Your task to perform on an android device: What's on my calendar tomorrow? Image 0: 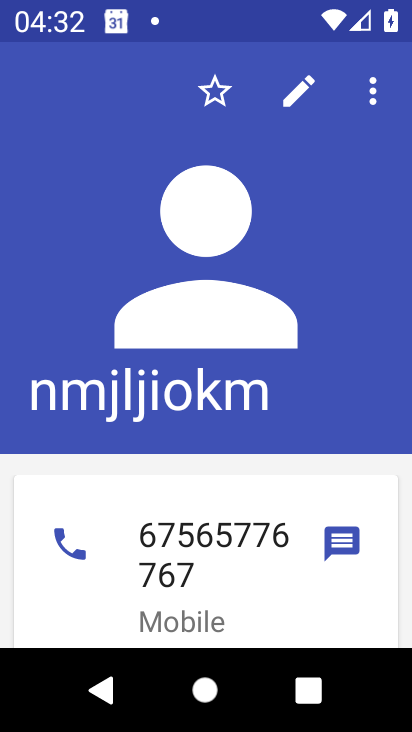
Step 0: press home button
Your task to perform on an android device: What's on my calendar tomorrow? Image 1: 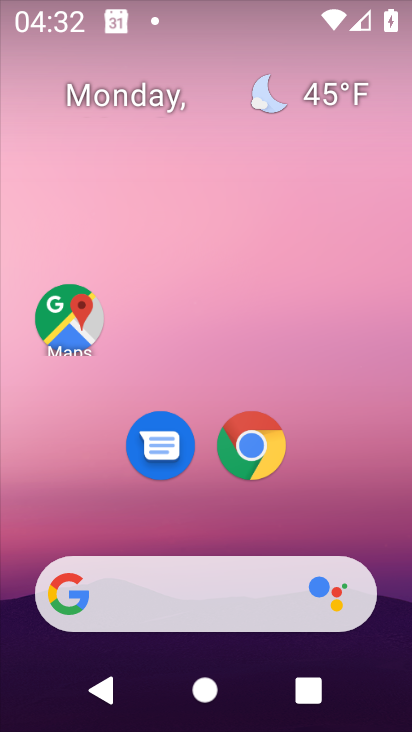
Step 1: drag from (347, 454) to (303, 17)
Your task to perform on an android device: What's on my calendar tomorrow? Image 2: 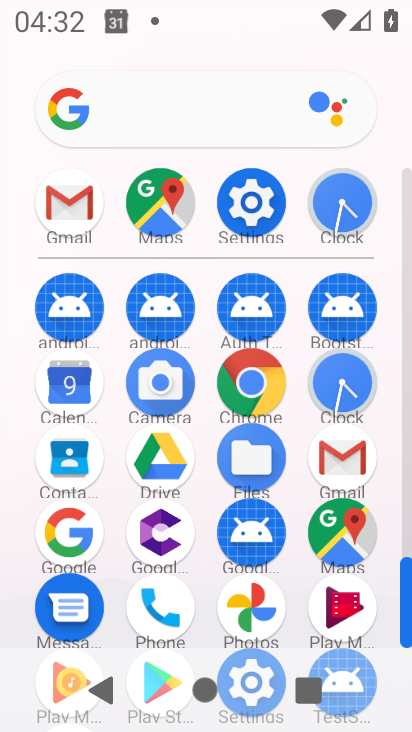
Step 2: click (59, 395)
Your task to perform on an android device: What's on my calendar tomorrow? Image 3: 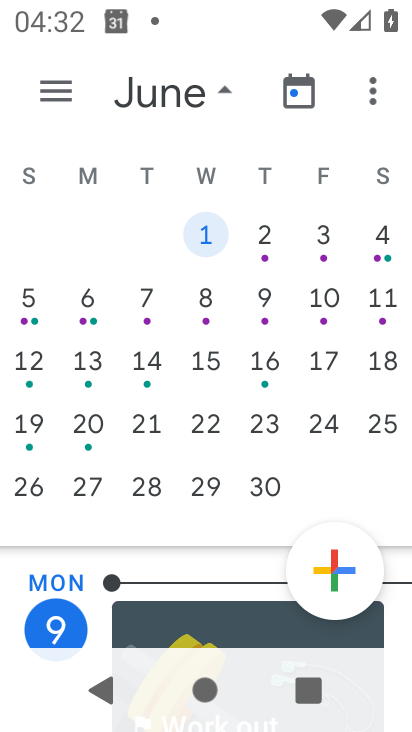
Step 3: drag from (261, 243) to (406, 269)
Your task to perform on an android device: What's on my calendar tomorrow? Image 4: 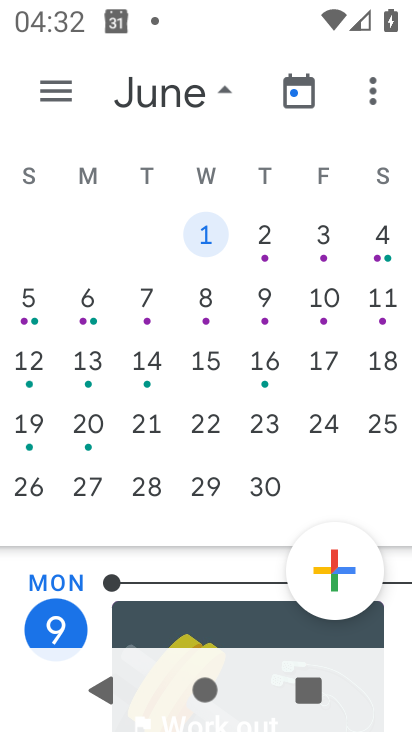
Step 4: drag from (96, 338) to (407, 416)
Your task to perform on an android device: What's on my calendar tomorrow? Image 5: 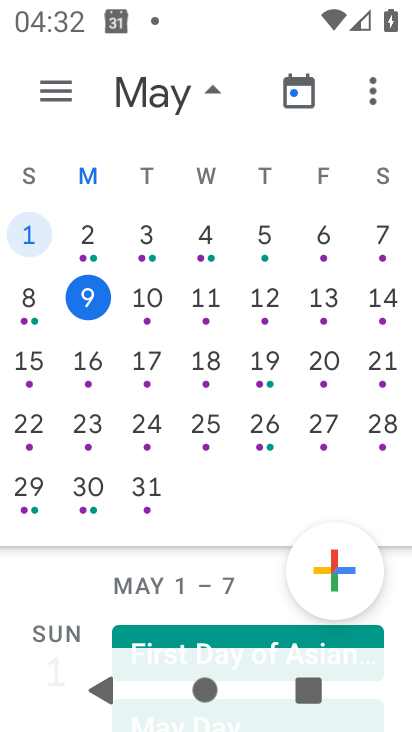
Step 5: click (158, 305)
Your task to perform on an android device: What's on my calendar tomorrow? Image 6: 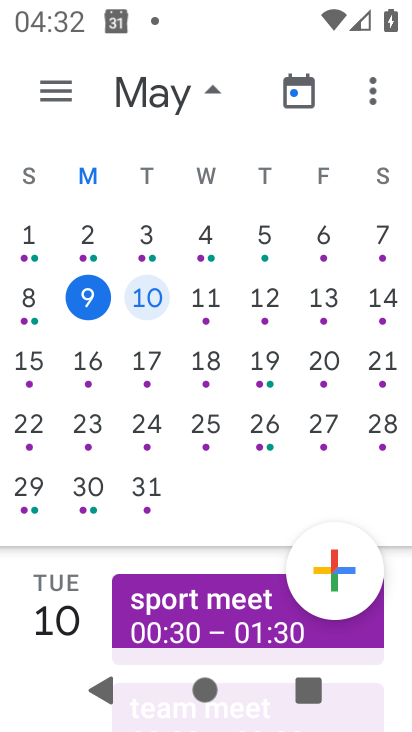
Step 6: task complete